Your task to perform on an android device: Find coffee shops on Maps Image 0: 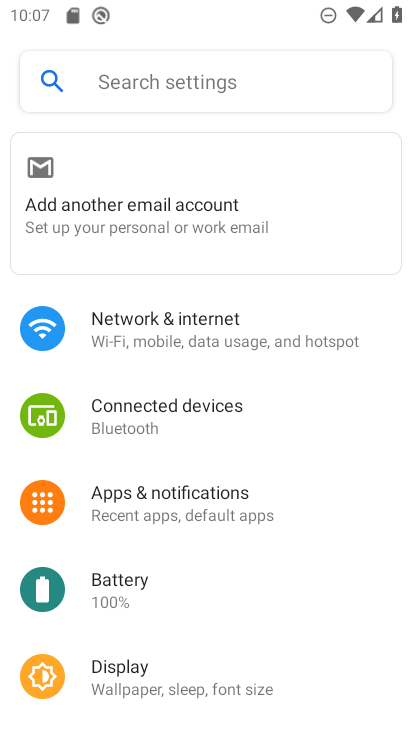
Step 0: press home button
Your task to perform on an android device: Find coffee shops on Maps Image 1: 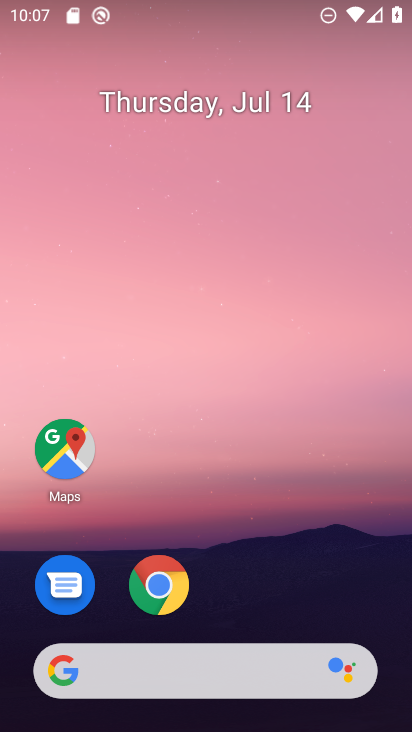
Step 1: drag from (202, 631) to (86, 140)
Your task to perform on an android device: Find coffee shops on Maps Image 2: 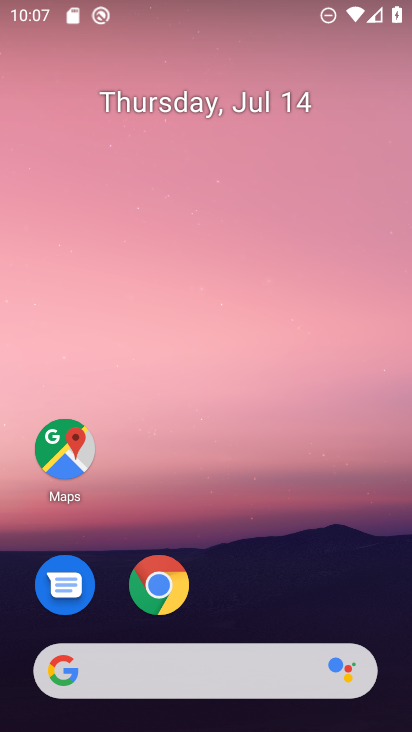
Step 2: drag from (255, 619) to (258, 16)
Your task to perform on an android device: Find coffee shops on Maps Image 3: 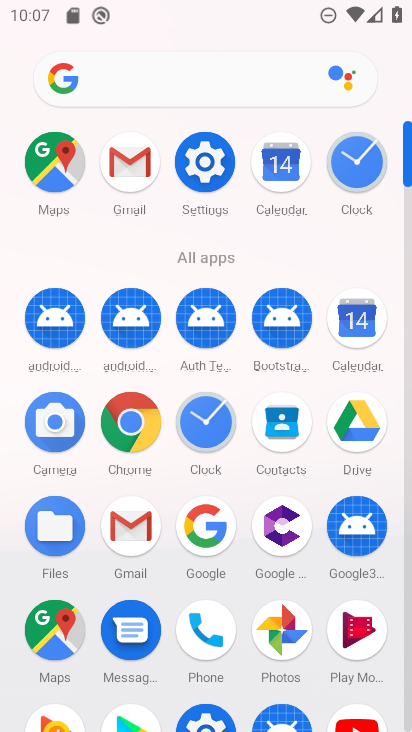
Step 3: click (47, 625)
Your task to perform on an android device: Find coffee shops on Maps Image 4: 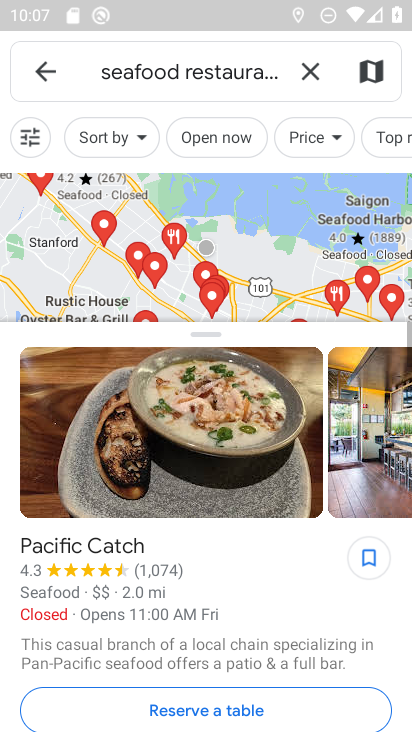
Step 4: click (307, 76)
Your task to perform on an android device: Find coffee shops on Maps Image 5: 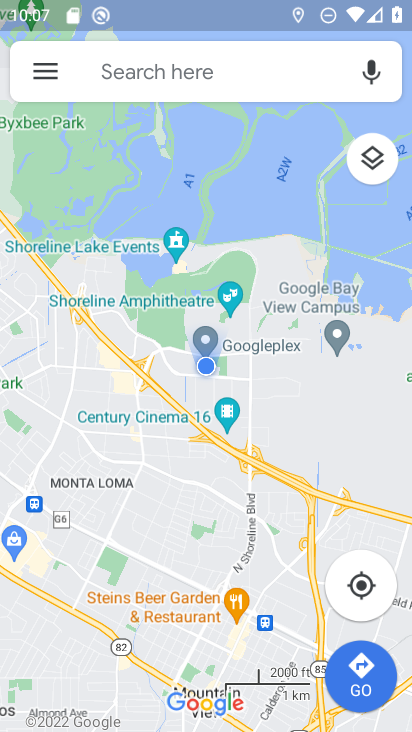
Step 5: click (190, 70)
Your task to perform on an android device: Find coffee shops on Maps Image 6: 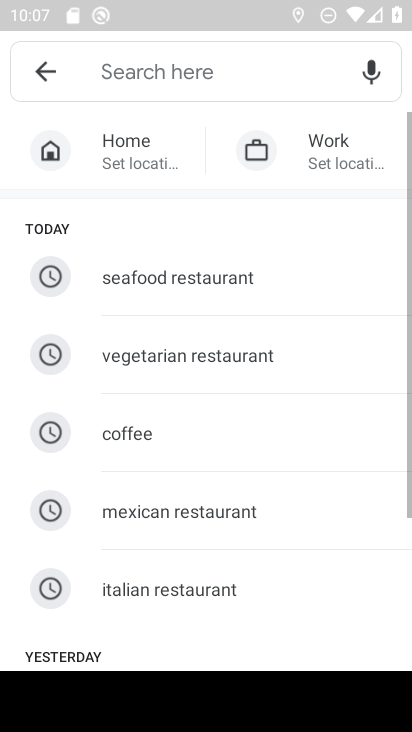
Step 6: click (124, 417)
Your task to perform on an android device: Find coffee shops on Maps Image 7: 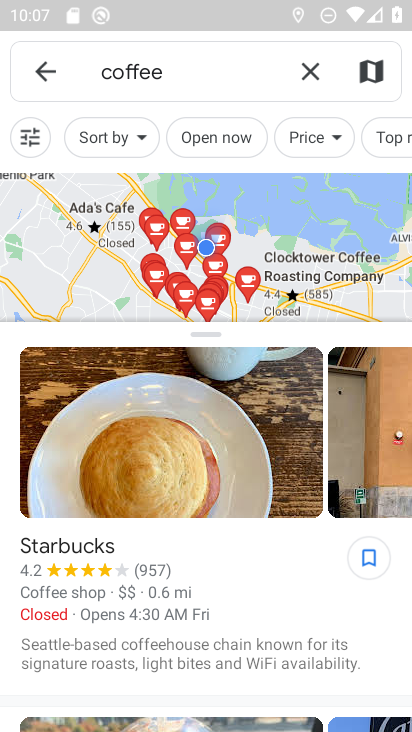
Step 7: task complete